Your task to perform on an android device: turn pop-ups off in chrome Image 0: 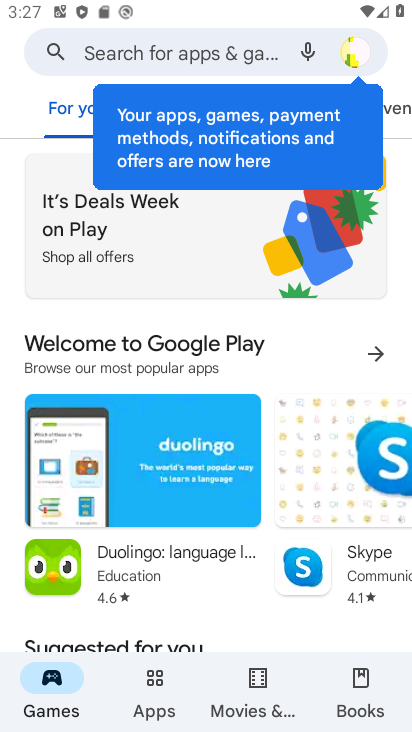
Step 0: press home button
Your task to perform on an android device: turn pop-ups off in chrome Image 1: 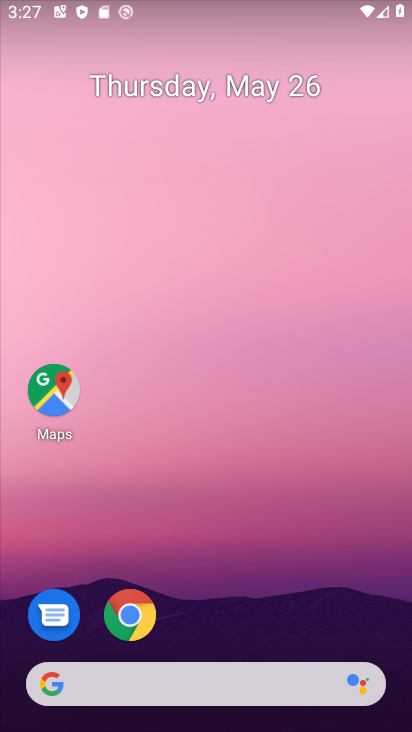
Step 1: click (149, 607)
Your task to perform on an android device: turn pop-ups off in chrome Image 2: 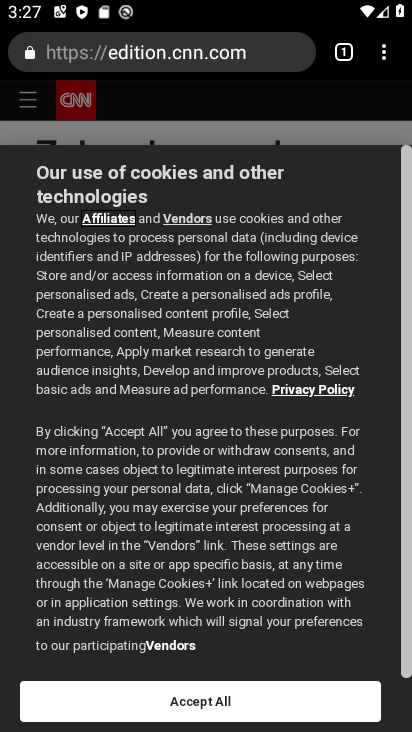
Step 2: click (390, 48)
Your task to perform on an android device: turn pop-ups off in chrome Image 3: 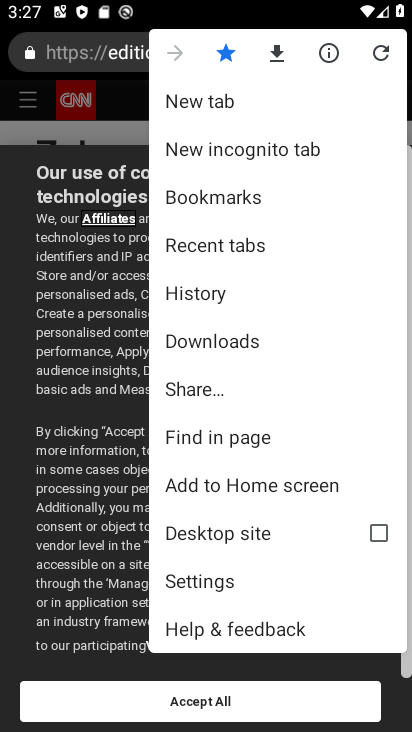
Step 3: click (263, 571)
Your task to perform on an android device: turn pop-ups off in chrome Image 4: 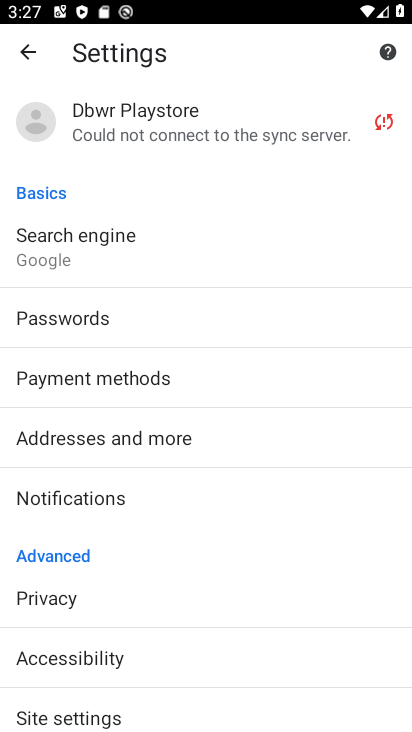
Step 4: click (211, 712)
Your task to perform on an android device: turn pop-ups off in chrome Image 5: 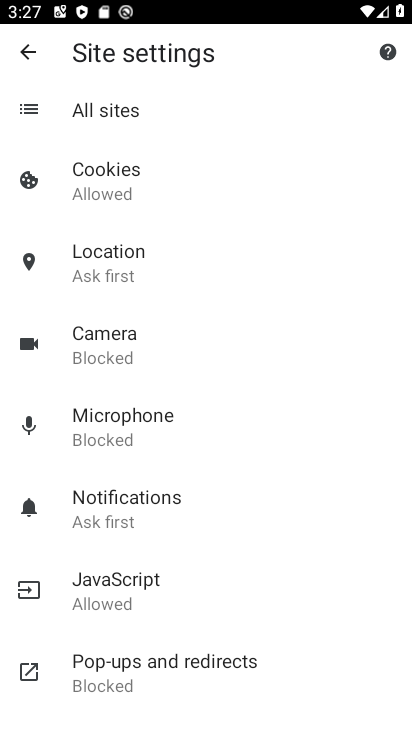
Step 5: click (216, 657)
Your task to perform on an android device: turn pop-ups off in chrome Image 6: 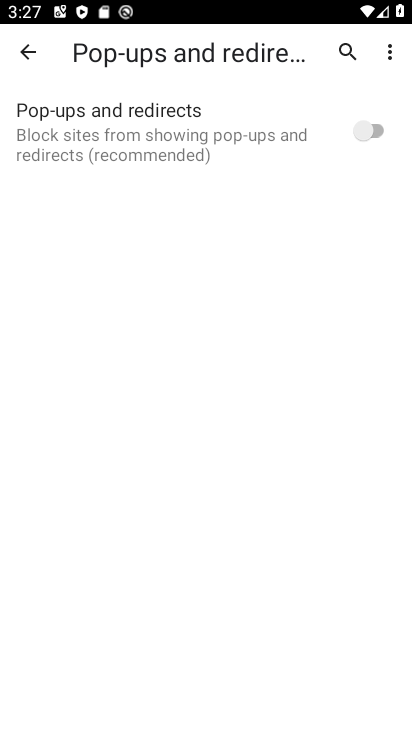
Step 6: task complete